Your task to perform on an android device: Open wifi settings Image 0: 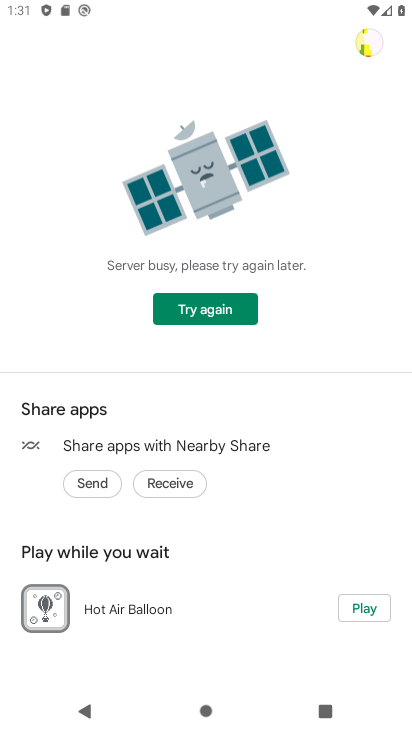
Step 0: press home button
Your task to perform on an android device: Open wifi settings Image 1: 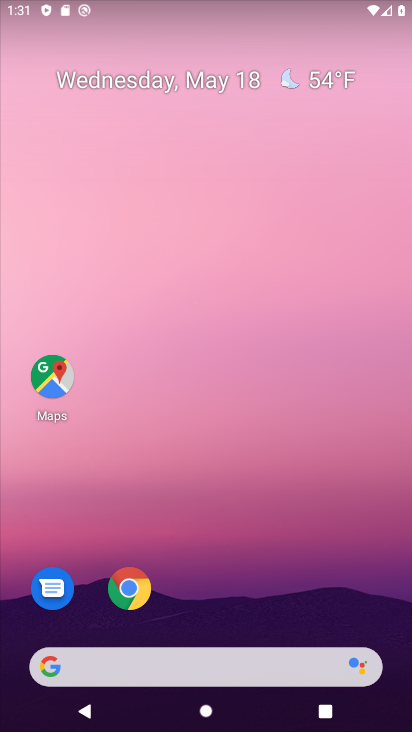
Step 1: drag from (198, 654) to (188, 281)
Your task to perform on an android device: Open wifi settings Image 2: 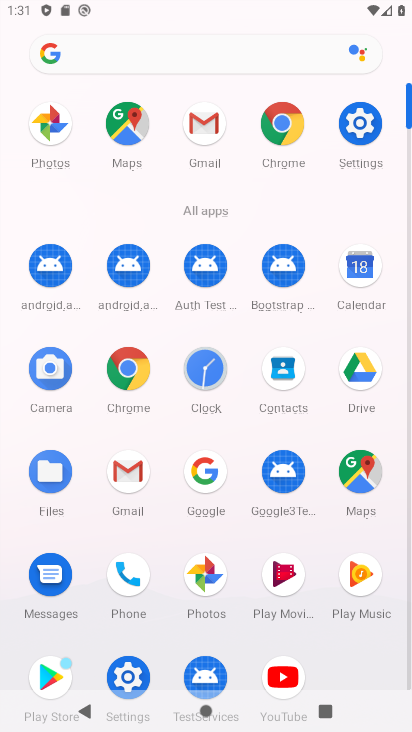
Step 2: click (349, 130)
Your task to perform on an android device: Open wifi settings Image 3: 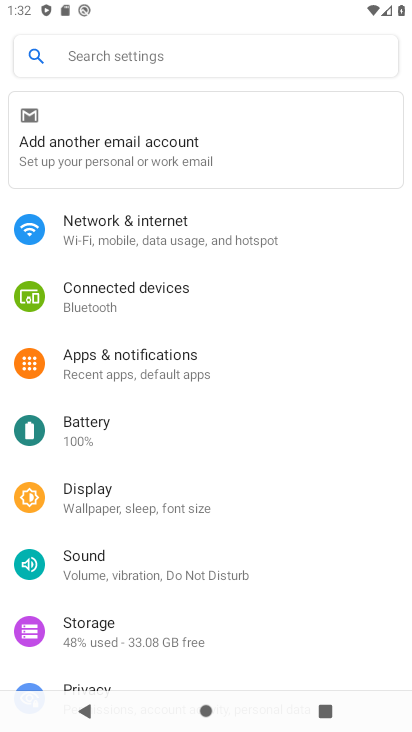
Step 3: click (147, 221)
Your task to perform on an android device: Open wifi settings Image 4: 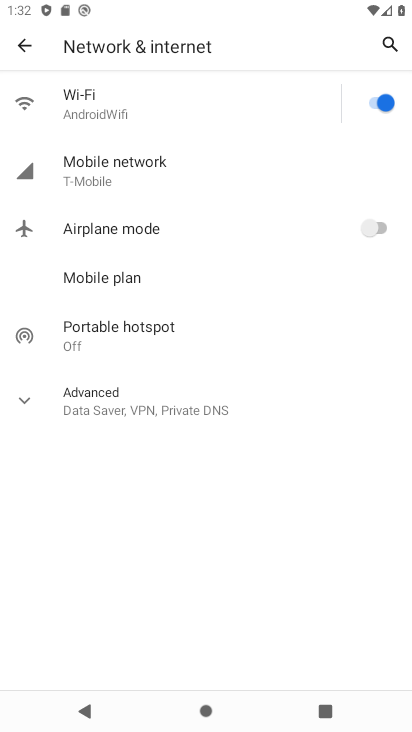
Step 4: click (120, 94)
Your task to perform on an android device: Open wifi settings Image 5: 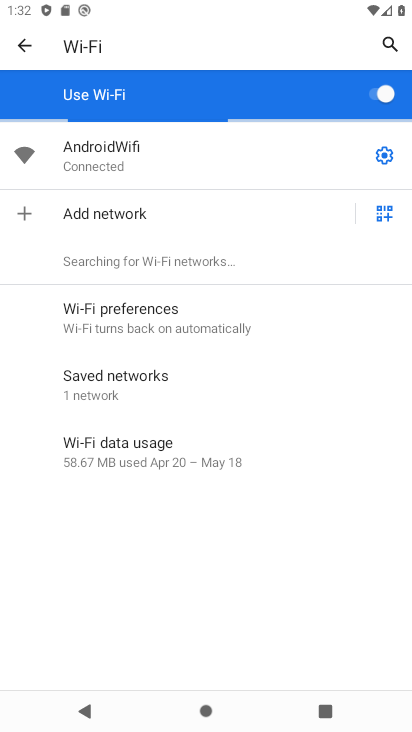
Step 5: task complete